Your task to perform on an android device: Open Wikipedia Image 0: 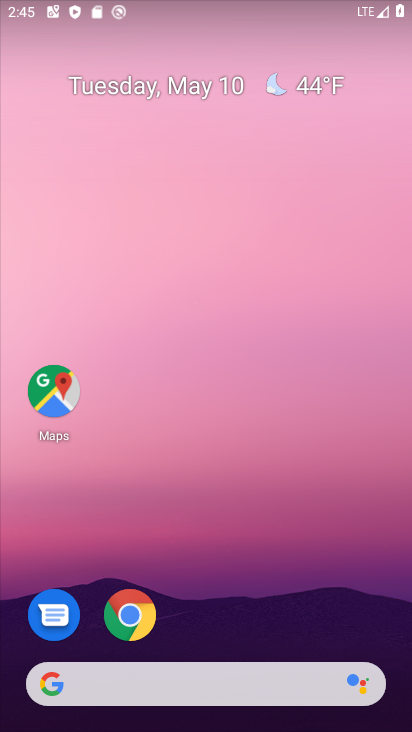
Step 0: click (126, 631)
Your task to perform on an android device: Open Wikipedia Image 1: 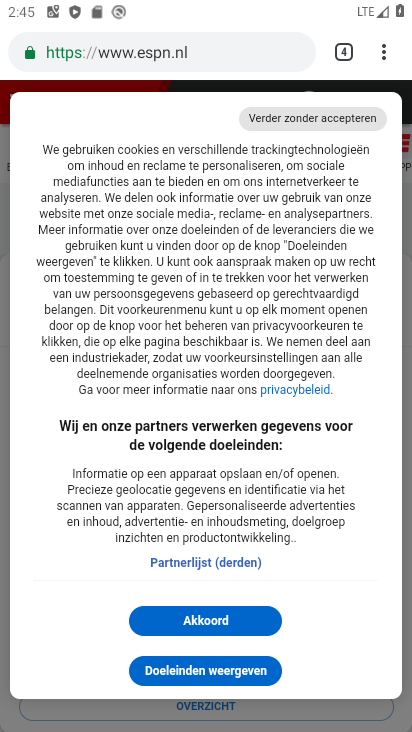
Step 1: click (216, 42)
Your task to perform on an android device: Open Wikipedia Image 2: 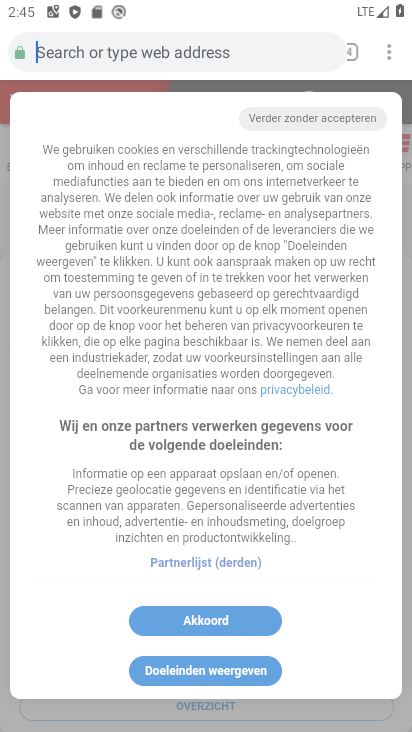
Step 2: click (216, 42)
Your task to perform on an android device: Open Wikipedia Image 3: 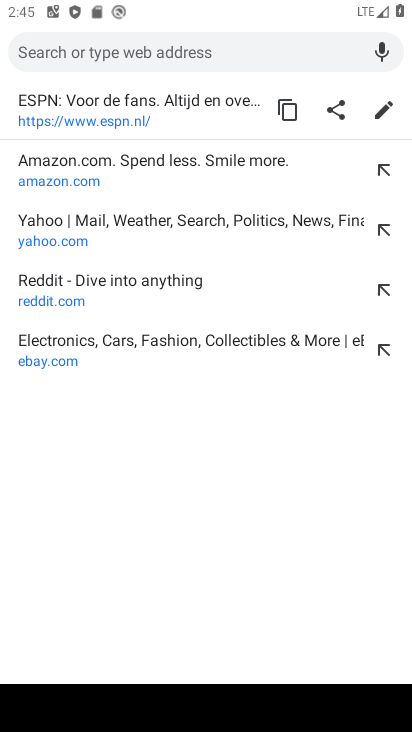
Step 3: type "Wikipedia"
Your task to perform on an android device: Open Wikipedia Image 4: 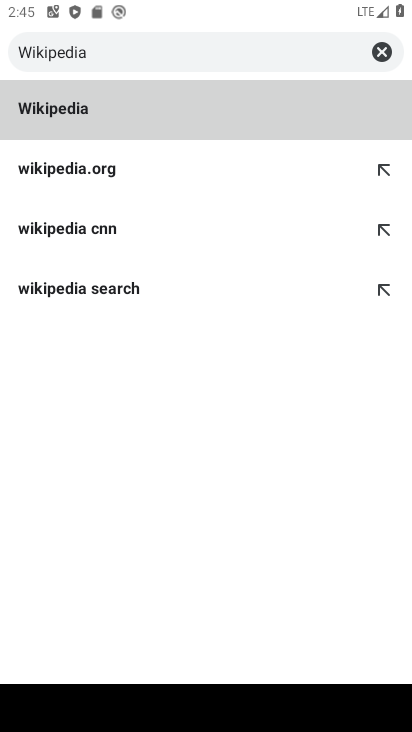
Step 4: click (145, 118)
Your task to perform on an android device: Open Wikipedia Image 5: 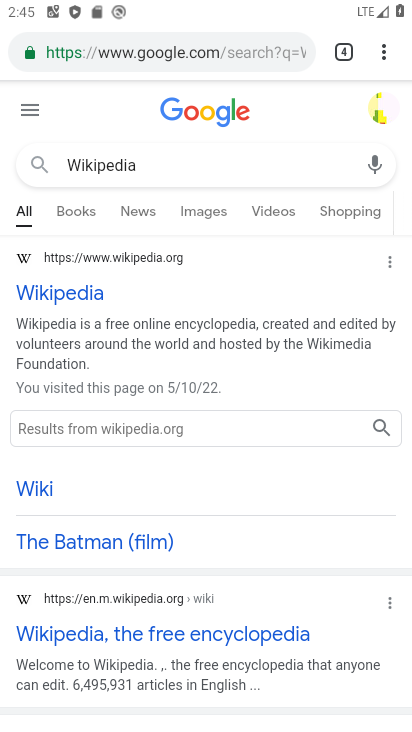
Step 5: click (72, 279)
Your task to perform on an android device: Open Wikipedia Image 6: 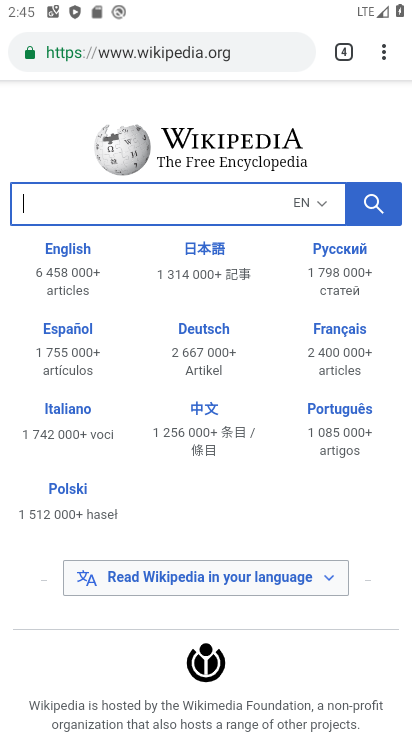
Step 6: task complete